Your task to perform on an android device: delete the emails in spam in the gmail app Image 0: 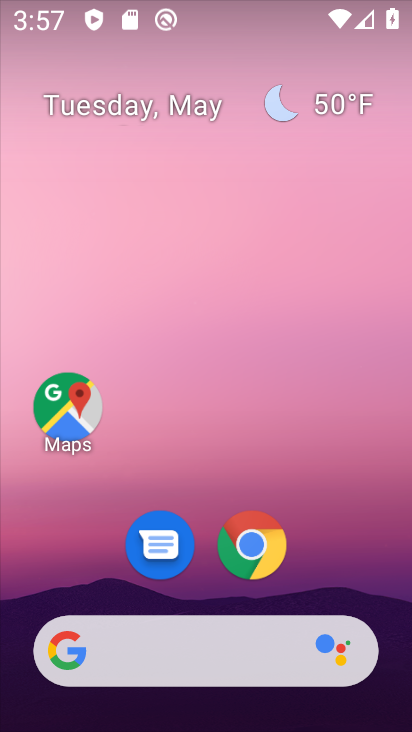
Step 0: drag from (201, 581) to (243, 14)
Your task to perform on an android device: delete the emails in spam in the gmail app Image 1: 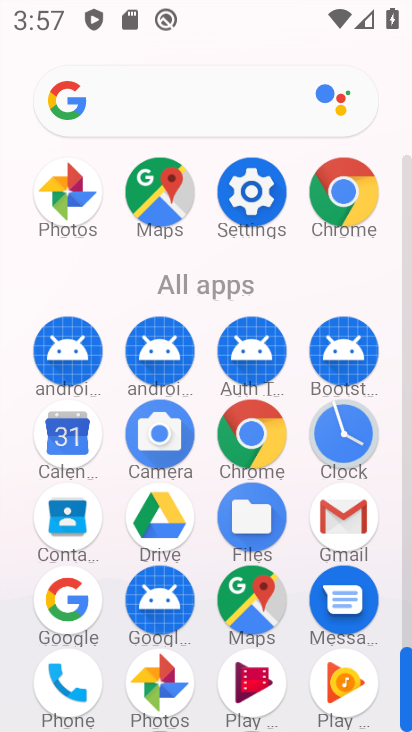
Step 1: click (343, 515)
Your task to perform on an android device: delete the emails in spam in the gmail app Image 2: 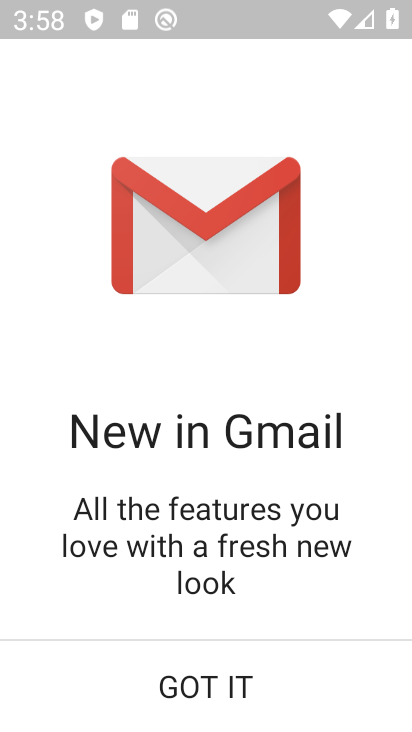
Step 2: click (238, 692)
Your task to perform on an android device: delete the emails in spam in the gmail app Image 3: 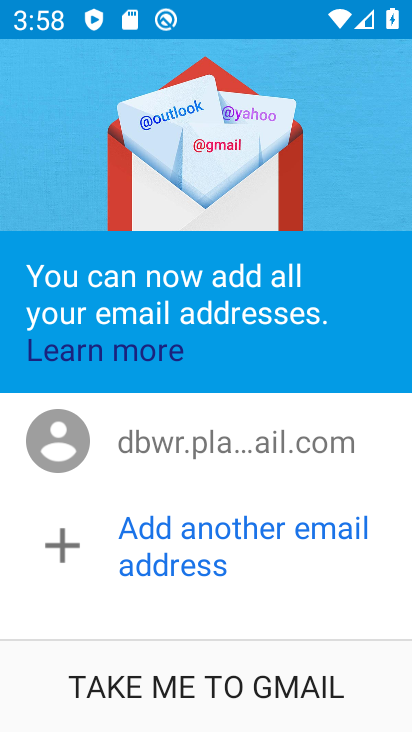
Step 3: click (239, 700)
Your task to perform on an android device: delete the emails in spam in the gmail app Image 4: 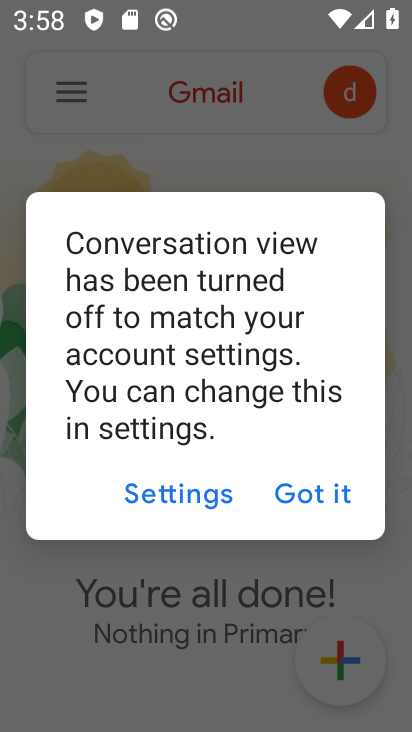
Step 4: click (309, 483)
Your task to perform on an android device: delete the emails in spam in the gmail app Image 5: 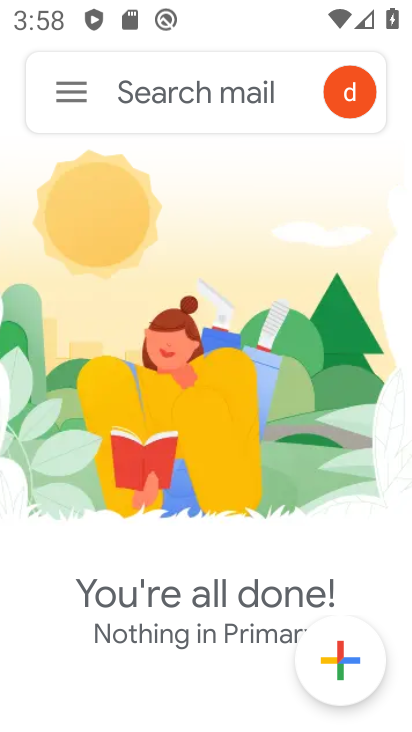
Step 5: click (68, 92)
Your task to perform on an android device: delete the emails in spam in the gmail app Image 6: 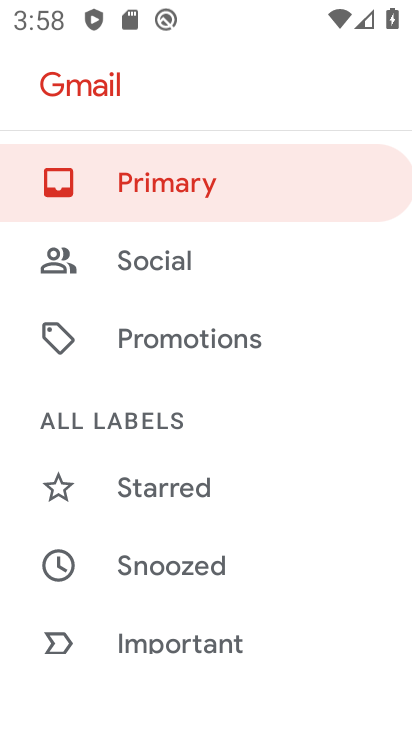
Step 6: drag from (149, 559) to (173, 425)
Your task to perform on an android device: delete the emails in spam in the gmail app Image 7: 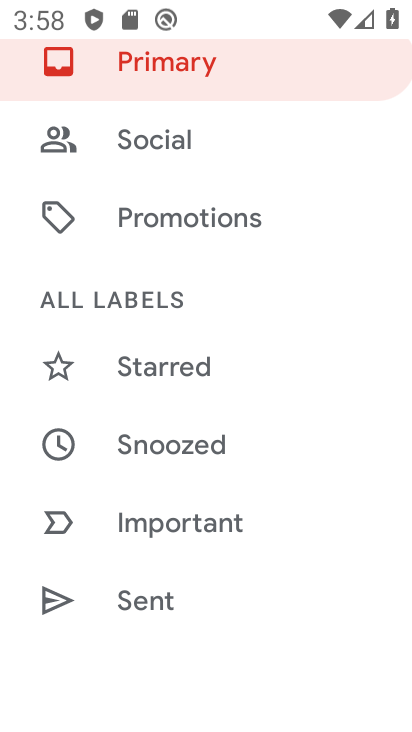
Step 7: drag from (159, 565) to (210, 298)
Your task to perform on an android device: delete the emails in spam in the gmail app Image 8: 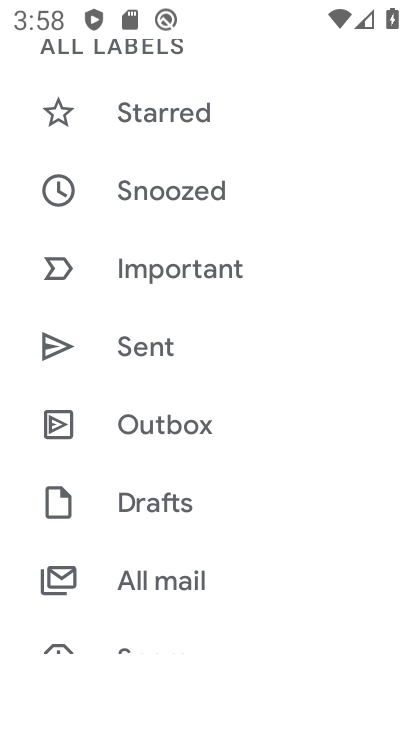
Step 8: drag from (172, 584) to (187, 317)
Your task to perform on an android device: delete the emails in spam in the gmail app Image 9: 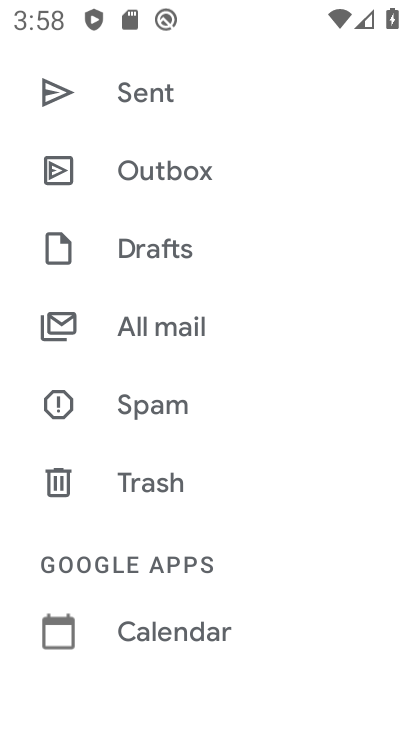
Step 9: click (157, 412)
Your task to perform on an android device: delete the emails in spam in the gmail app Image 10: 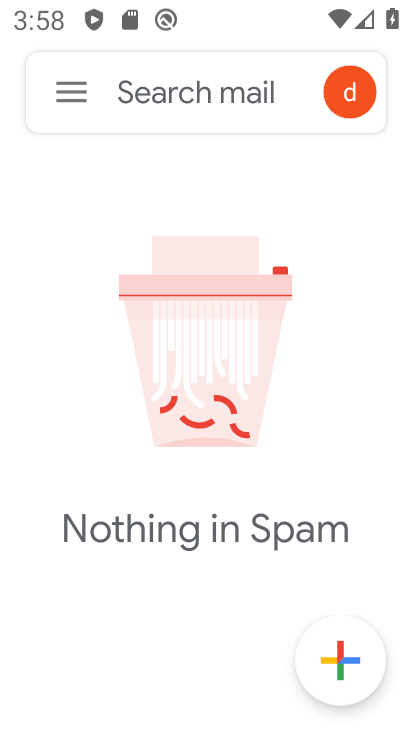
Step 10: task complete